Your task to perform on an android device: Open accessibility settings Image 0: 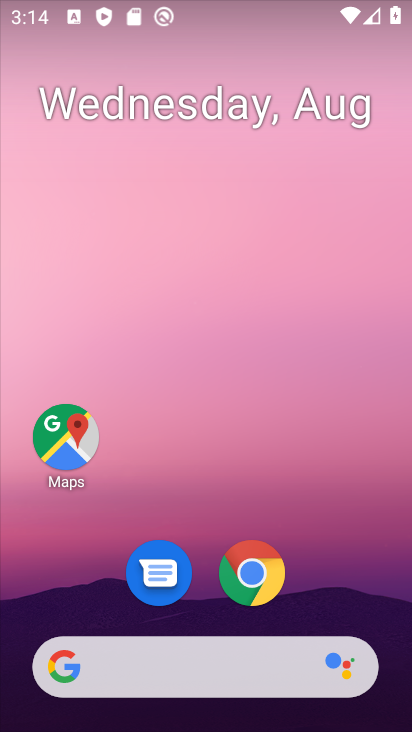
Step 0: drag from (273, 166) to (262, 2)
Your task to perform on an android device: Open accessibility settings Image 1: 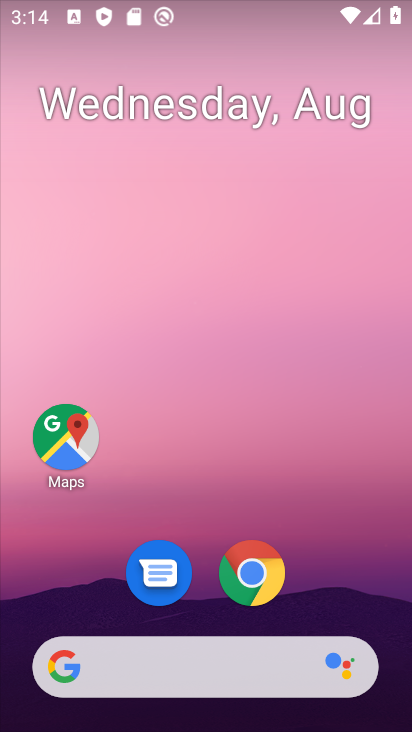
Step 1: drag from (297, 589) to (301, 0)
Your task to perform on an android device: Open accessibility settings Image 2: 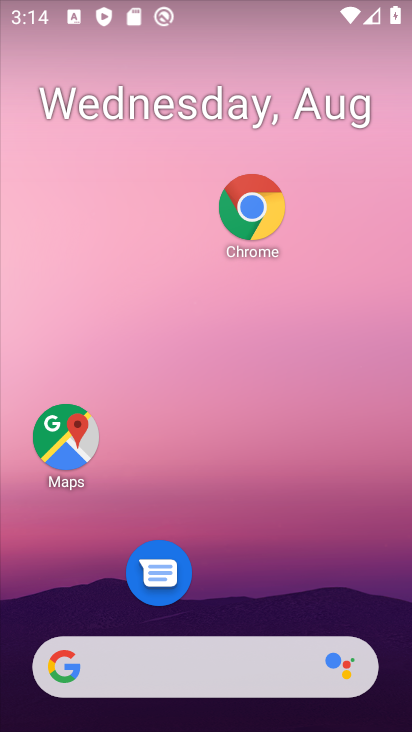
Step 2: drag from (257, 217) to (173, 466)
Your task to perform on an android device: Open accessibility settings Image 3: 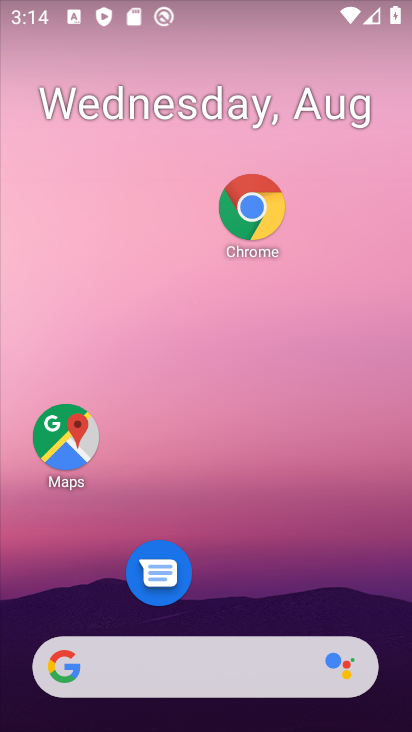
Step 3: drag from (325, 594) to (320, 4)
Your task to perform on an android device: Open accessibility settings Image 4: 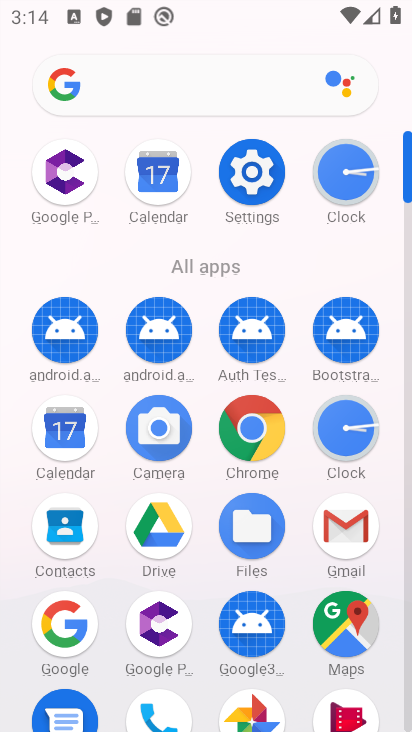
Step 4: click (253, 162)
Your task to perform on an android device: Open accessibility settings Image 5: 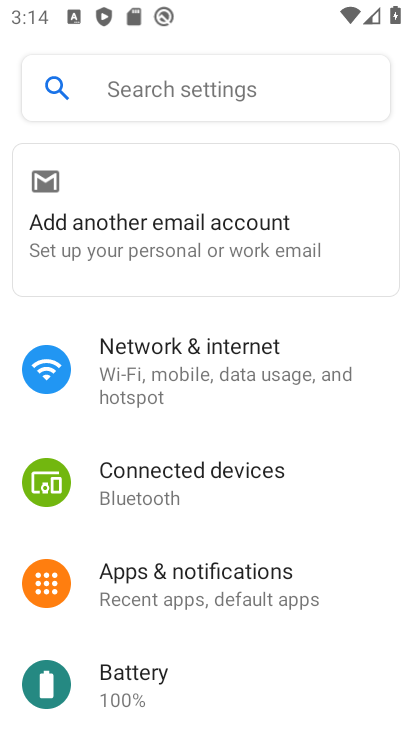
Step 5: drag from (228, 659) to (235, 0)
Your task to perform on an android device: Open accessibility settings Image 6: 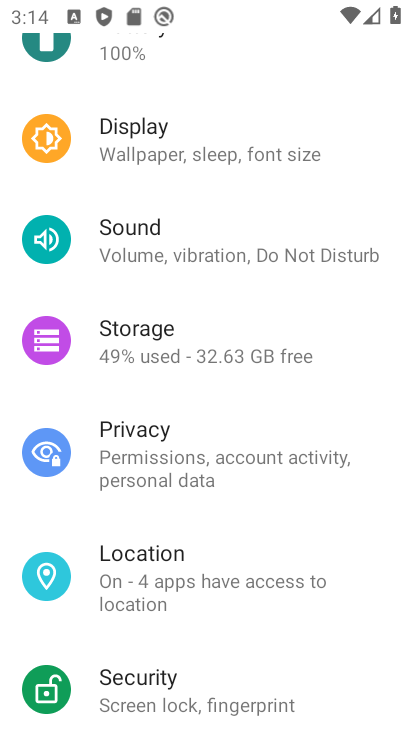
Step 6: drag from (252, 643) to (229, 2)
Your task to perform on an android device: Open accessibility settings Image 7: 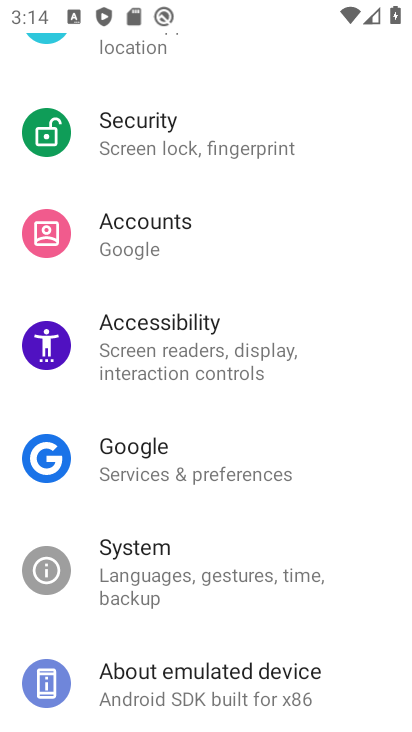
Step 7: click (197, 322)
Your task to perform on an android device: Open accessibility settings Image 8: 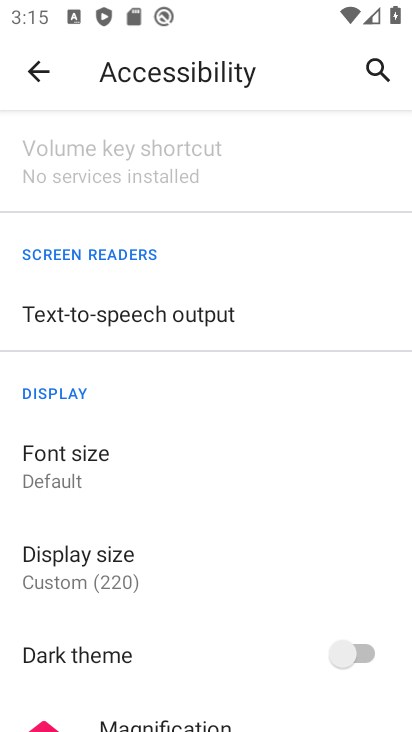
Step 8: task complete